Your task to perform on an android device: Search for pizza restaurants on Maps Image 0: 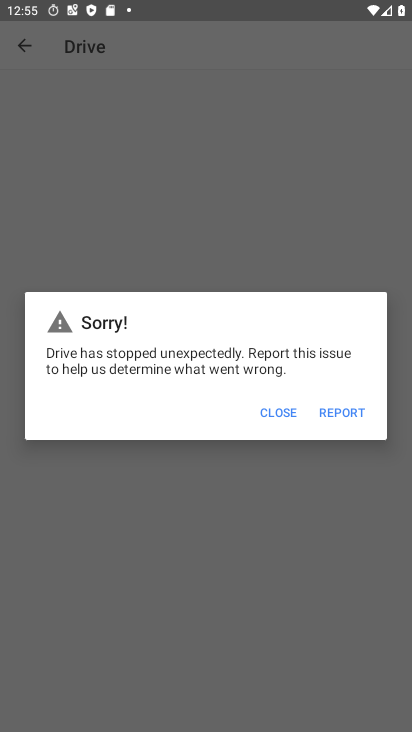
Step 0: press home button
Your task to perform on an android device: Search for pizza restaurants on Maps Image 1: 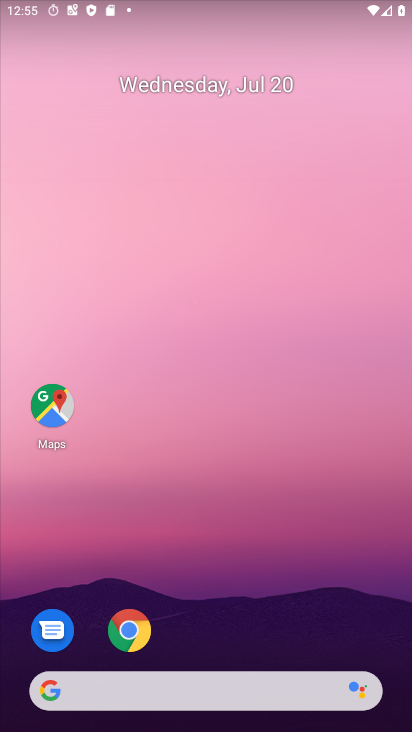
Step 1: click (43, 412)
Your task to perform on an android device: Search for pizza restaurants on Maps Image 2: 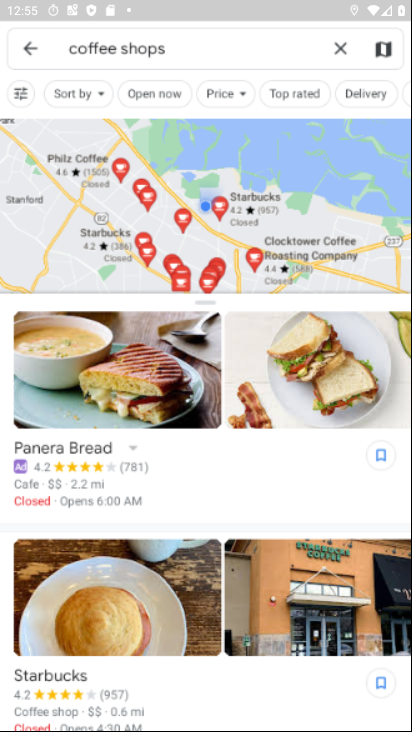
Step 2: click (317, 48)
Your task to perform on an android device: Search for pizza restaurants on Maps Image 3: 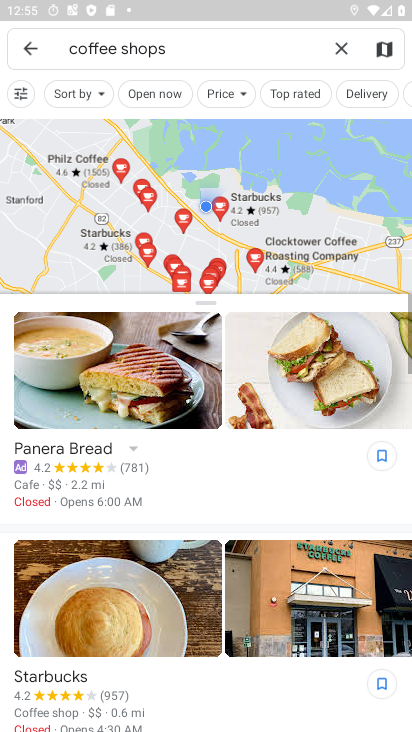
Step 3: click (336, 49)
Your task to perform on an android device: Search for pizza restaurants on Maps Image 4: 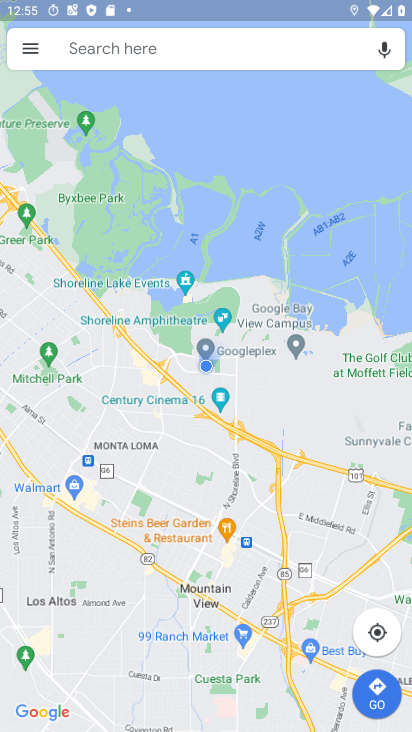
Step 4: click (129, 46)
Your task to perform on an android device: Search for pizza restaurants on Maps Image 5: 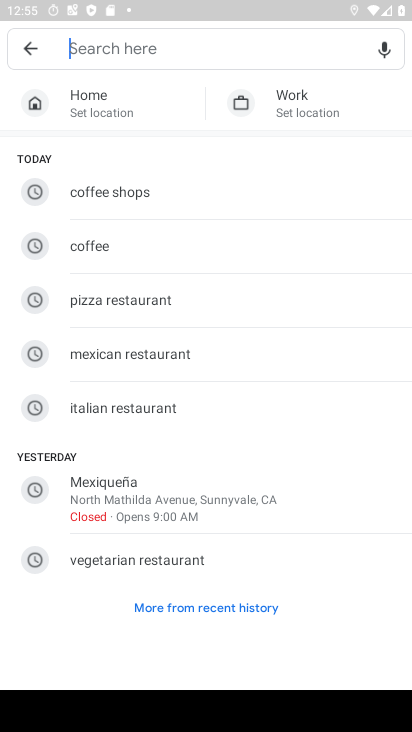
Step 5: type "pizza restaurants"
Your task to perform on an android device: Search for pizza restaurants on Maps Image 6: 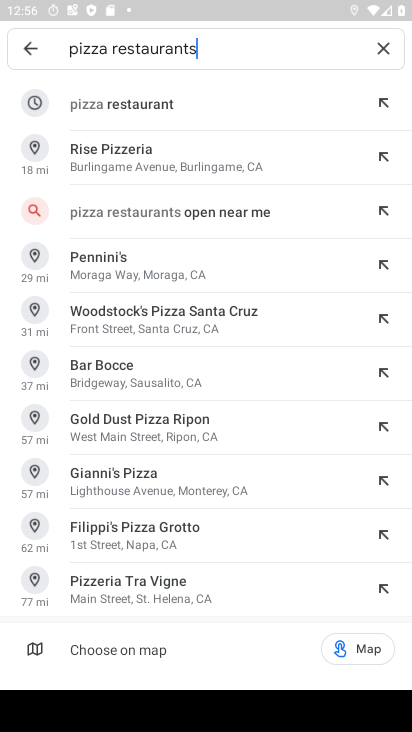
Step 6: click (148, 101)
Your task to perform on an android device: Search for pizza restaurants on Maps Image 7: 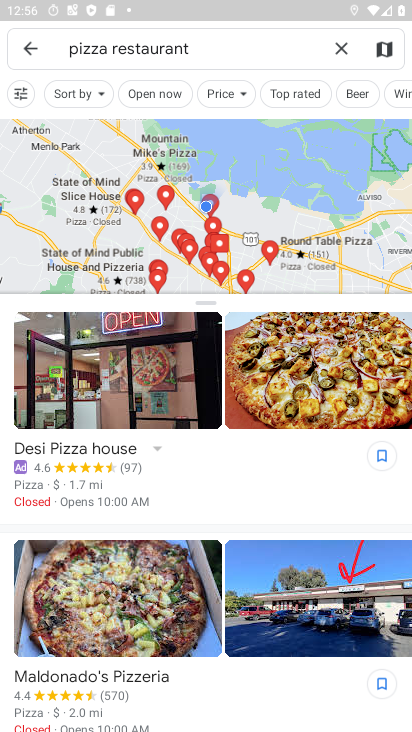
Step 7: task complete